Your task to perform on an android device: turn off data saver in the chrome app Image 0: 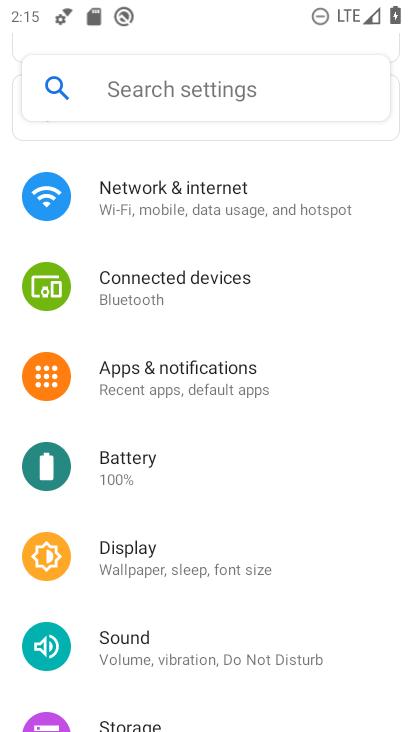
Step 0: press home button
Your task to perform on an android device: turn off data saver in the chrome app Image 1: 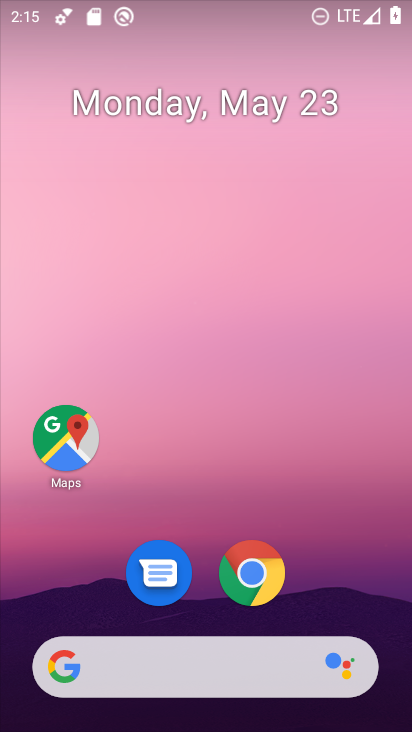
Step 1: click (262, 572)
Your task to perform on an android device: turn off data saver in the chrome app Image 2: 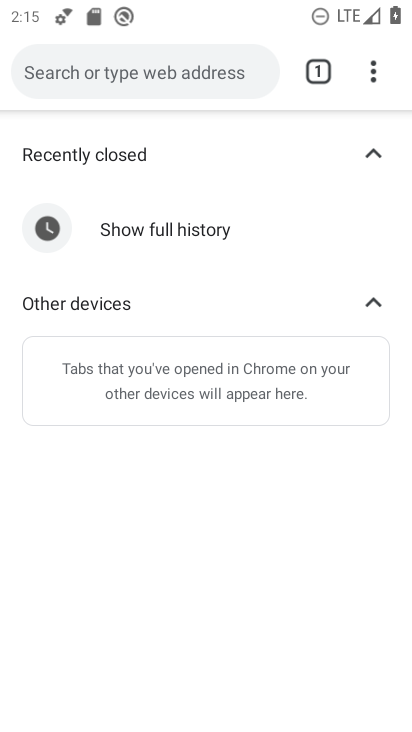
Step 2: drag from (384, 56) to (162, 619)
Your task to perform on an android device: turn off data saver in the chrome app Image 3: 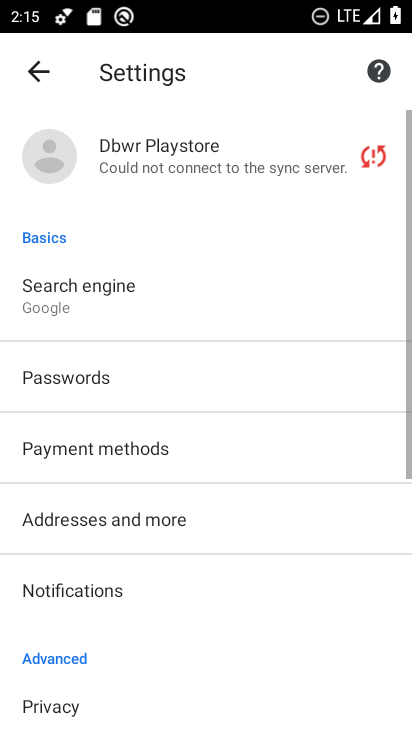
Step 3: drag from (170, 603) to (228, 187)
Your task to perform on an android device: turn off data saver in the chrome app Image 4: 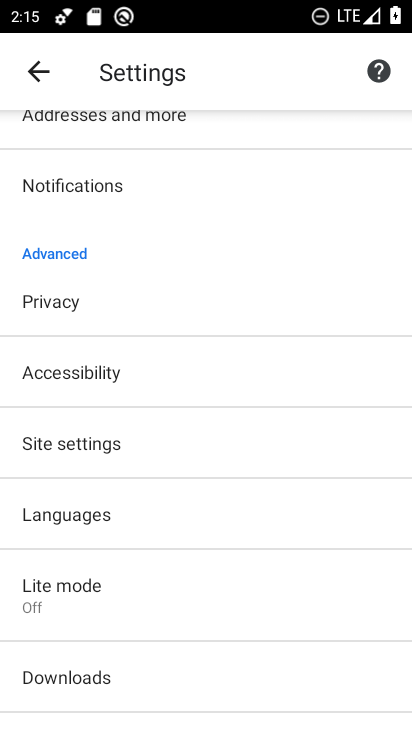
Step 4: click (168, 446)
Your task to perform on an android device: turn off data saver in the chrome app Image 5: 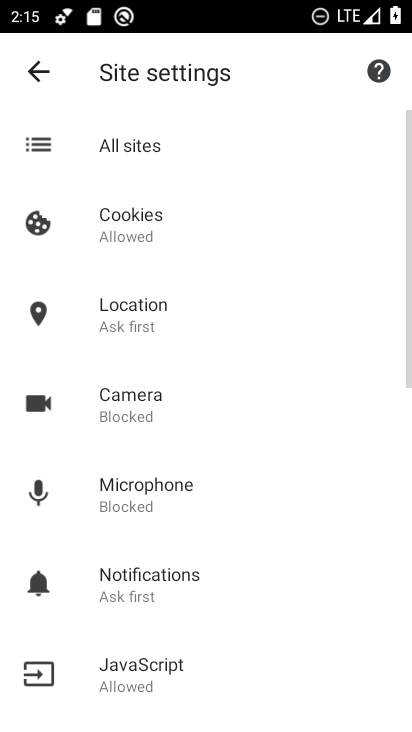
Step 5: click (40, 54)
Your task to perform on an android device: turn off data saver in the chrome app Image 6: 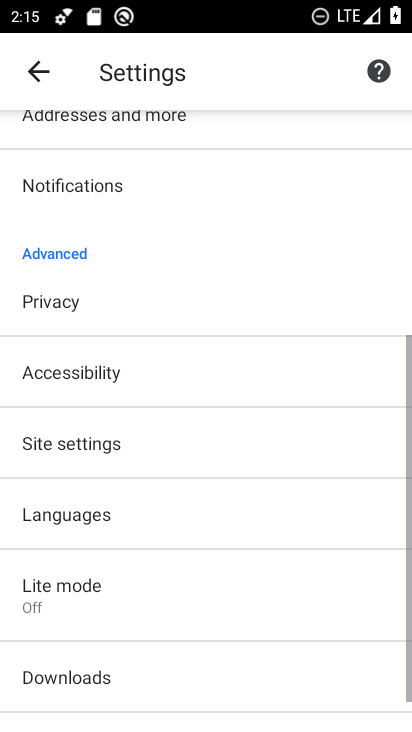
Step 6: click (137, 580)
Your task to perform on an android device: turn off data saver in the chrome app Image 7: 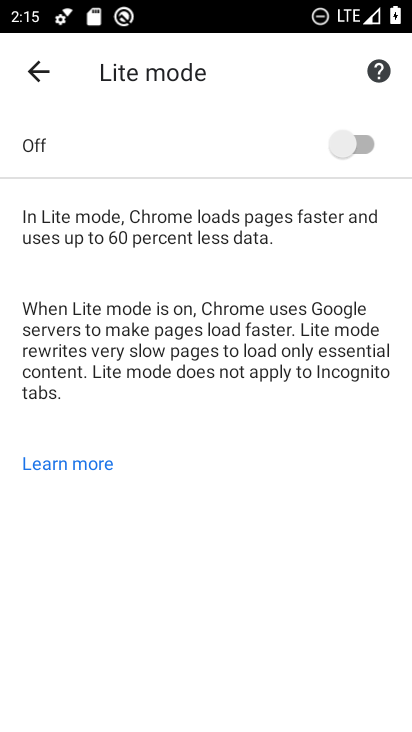
Step 7: task complete